Your task to perform on an android device: change timer sound Image 0: 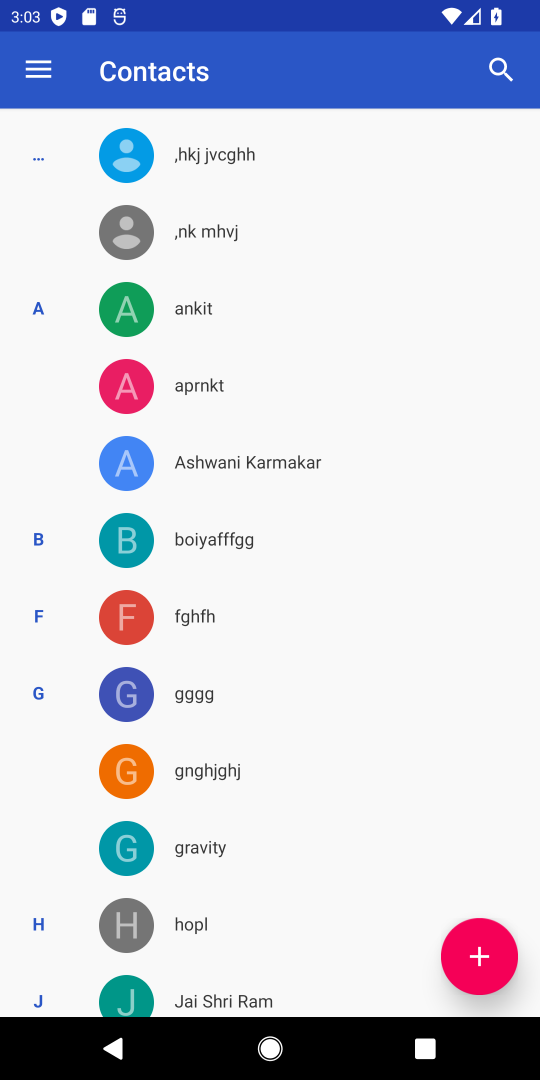
Step 0: press home button
Your task to perform on an android device: change timer sound Image 1: 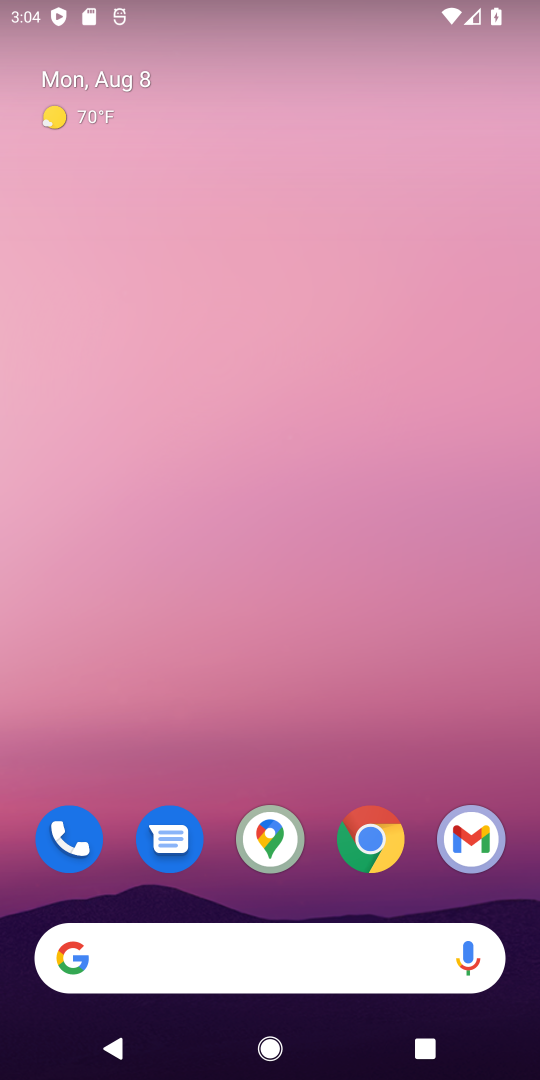
Step 1: drag from (425, 684) to (463, 230)
Your task to perform on an android device: change timer sound Image 2: 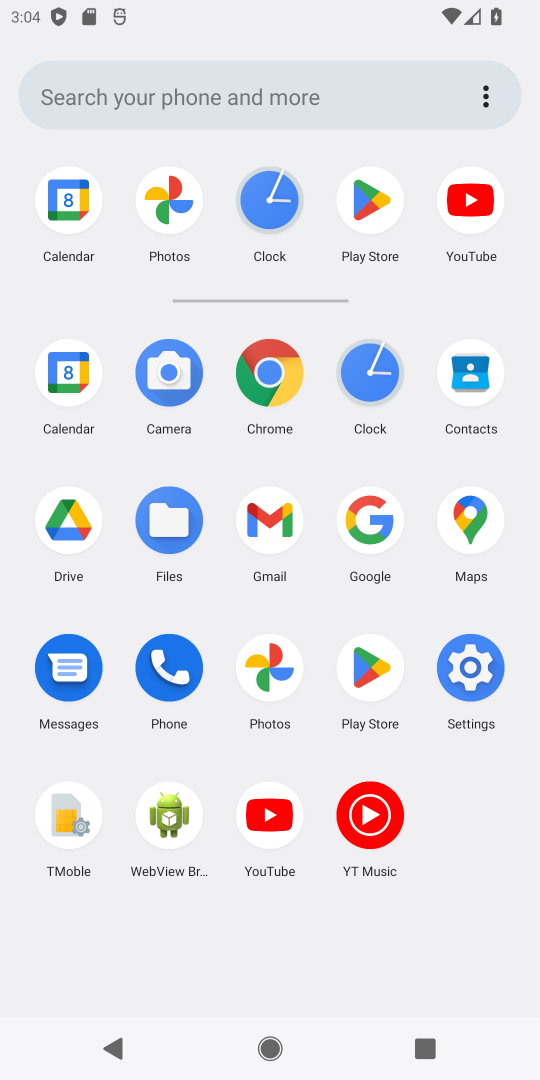
Step 2: click (375, 372)
Your task to perform on an android device: change timer sound Image 3: 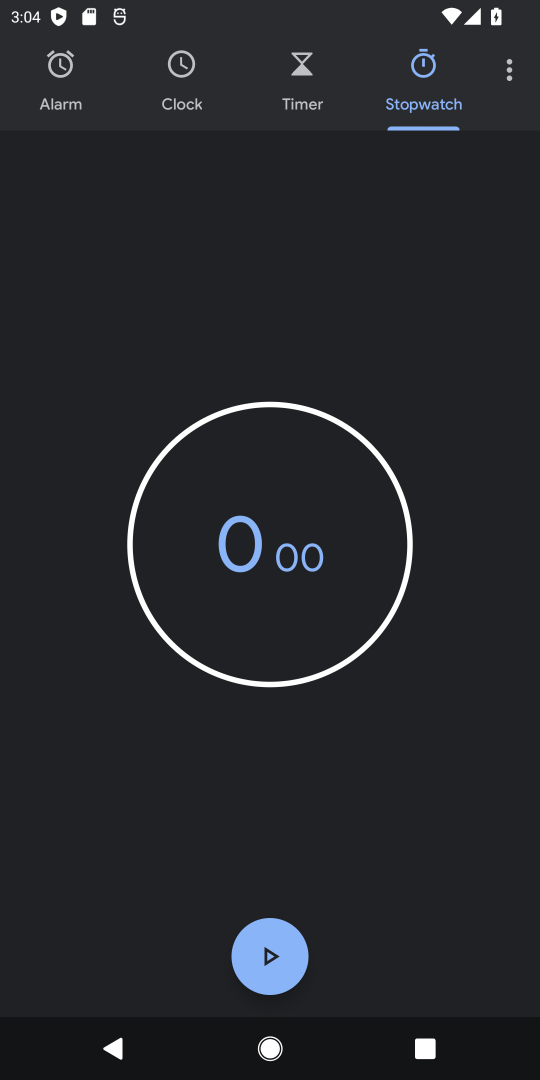
Step 3: click (507, 73)
Your task to perform on an android device: change timer sound Image 4: 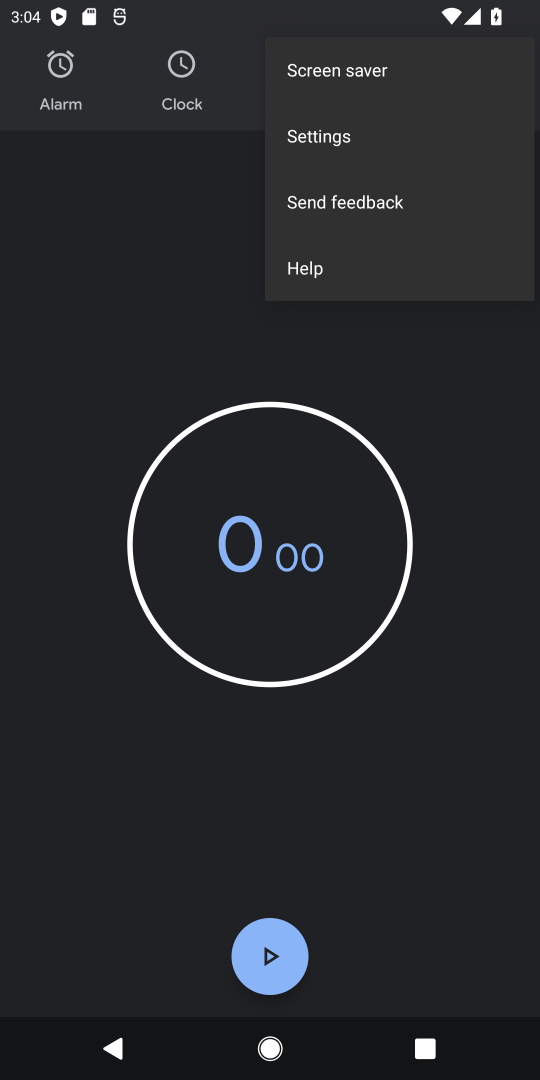
Step 4: click (337, 140)
Your task to perform on an android device: change timer sound Image 5: 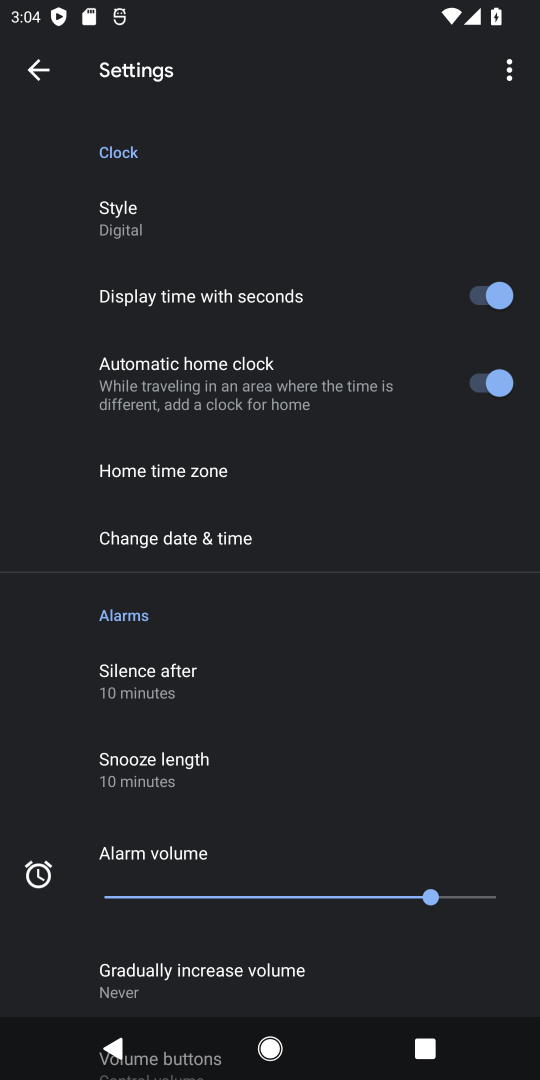
Step 5: drag from (423, 470) to (440, 323)
Your task to perform on an android device: change timer sound Image 6: 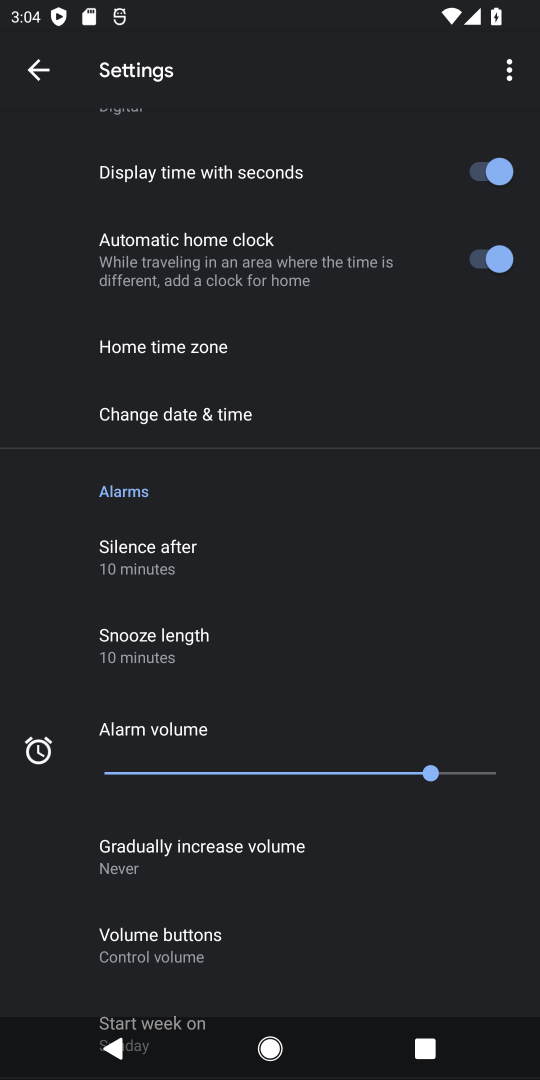
Step 6: drag from (423, 540) to (427, 328)
Your task to perform on an android device: change timer sound Image 7: 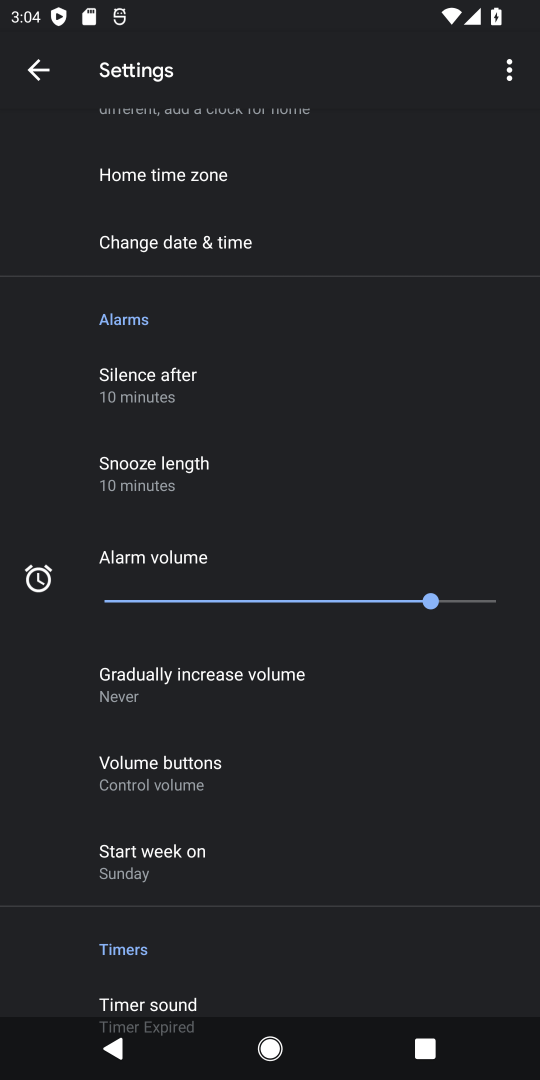
Step 7: drag from (407, 659) to (408, 419)
Your task to perform on an android device: change timer sound Image 8: 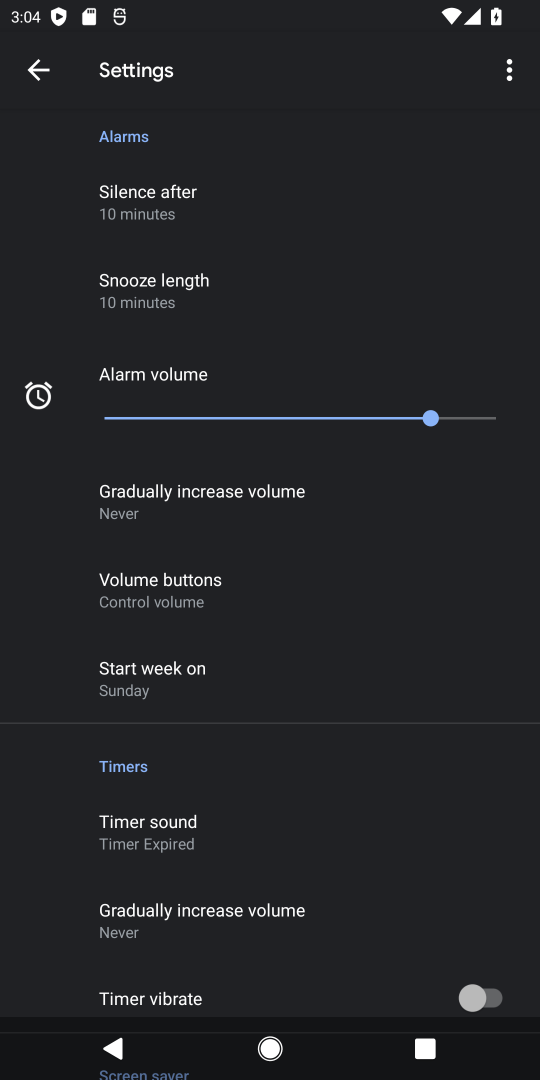
Step 8: drag from (410, 722) to (391, 466)
Your task to perform on an android device: change timer sound Image 9: 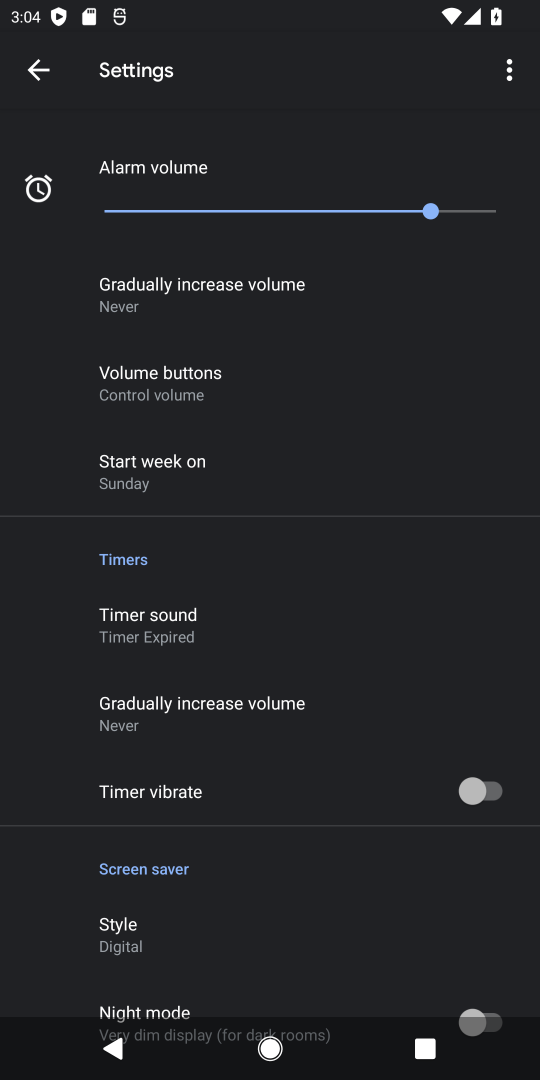
Step 9: drag from (376, 698) to (392, 452)
Your task to perform on an android device: change timer sound Image 10: 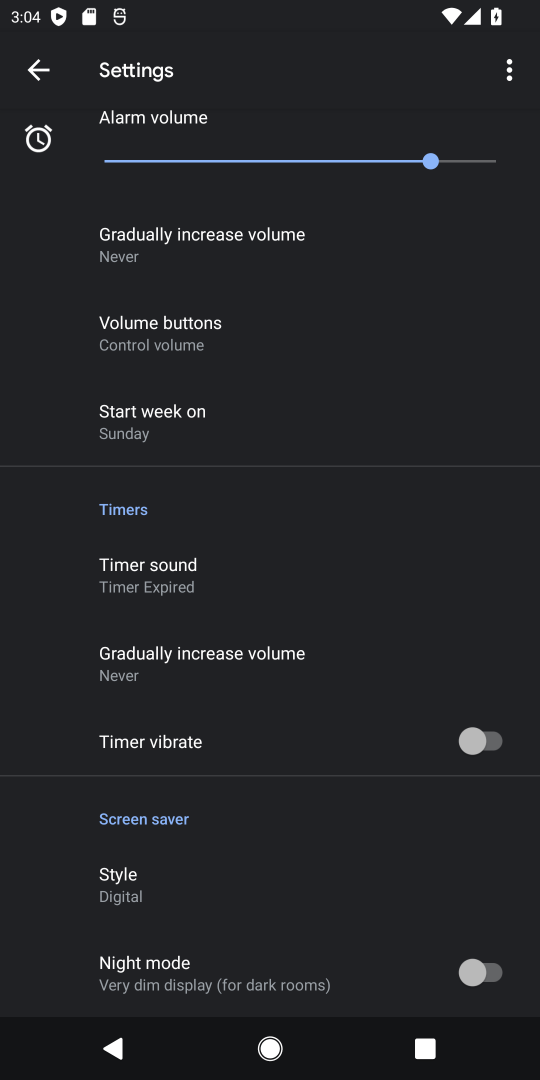
Step 10: click (227, 578)
Your task to perform on an android device: change timer sound Image 11: 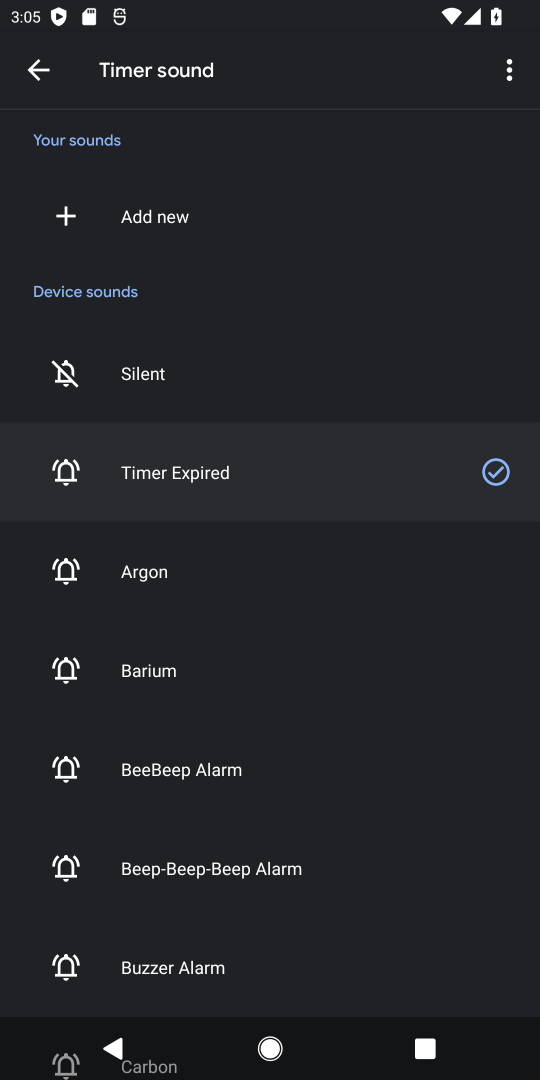
Step 11: click (209, 765)
Your task to perform on an android device: change timer sound Image 12: 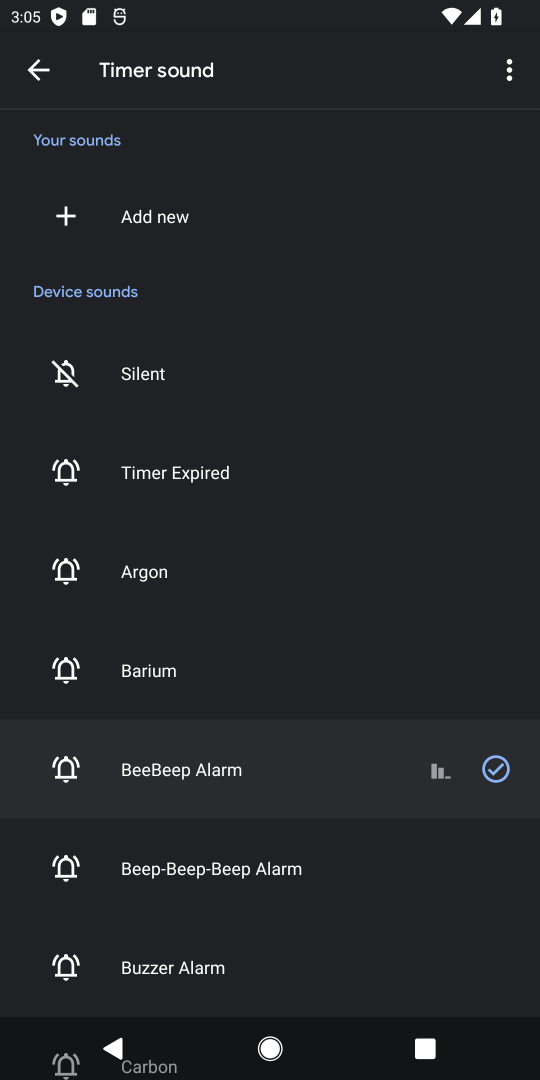
Step 12: task complete